Your task to perform on an android device: check data usage Image 0: 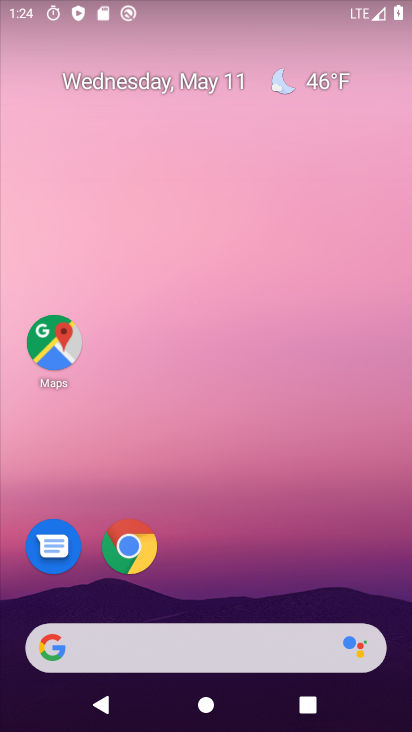
Step 0: drag from (224, 666) to (314, 200)
Your task to perform on an android device: check data usage Image 1: 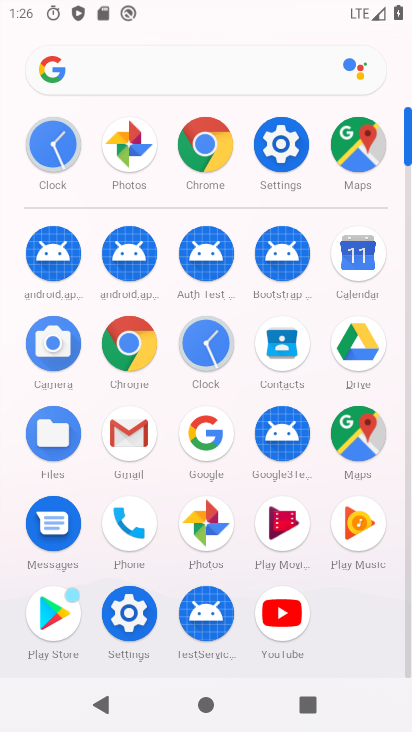
Step 1: click (282, 127)
Your task to perform on an android device: check data usage Image 2: 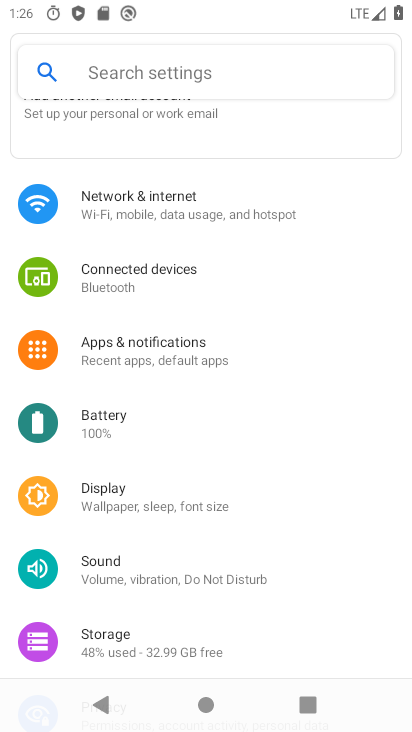
Step 2: click (169, 81)
Your task to perform on an android device: check data usage Image 3: 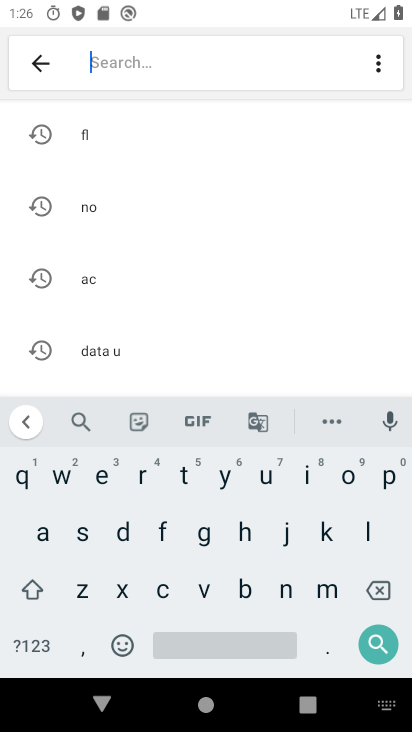
Step 3: click (106, 357)
Your task to perform on an android device: check data usage Image 4: 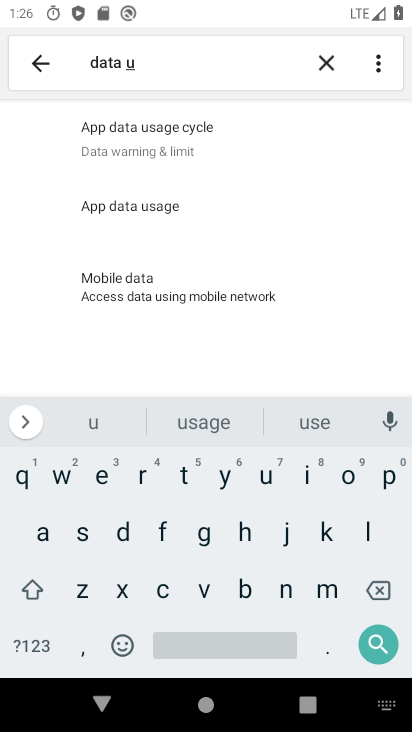
Step 4: click (146, 208)
Your task to perform on an android device: check data usage Image 5: 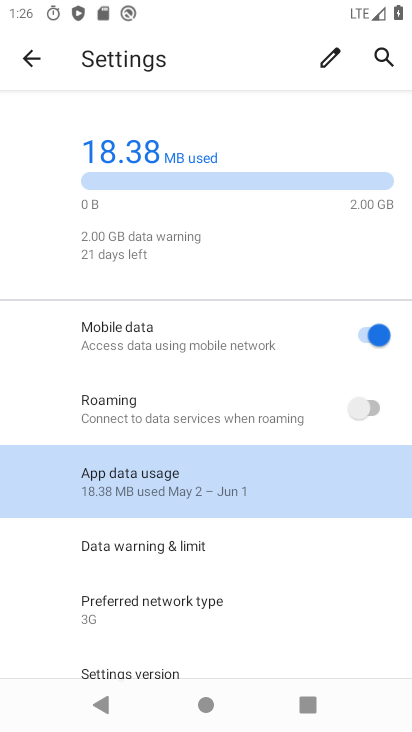
Step 5: click (180, 480)
Your task to perform on an android device: check data usage Image 6: 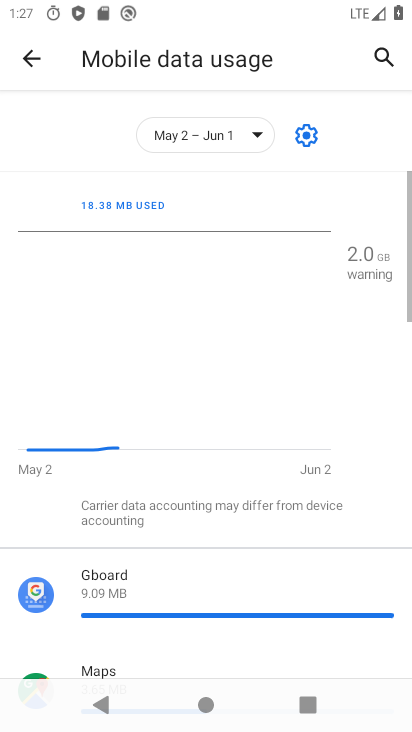
Step 6: task complete